Your task to perform on an android device: Go to Android settings Image 0: 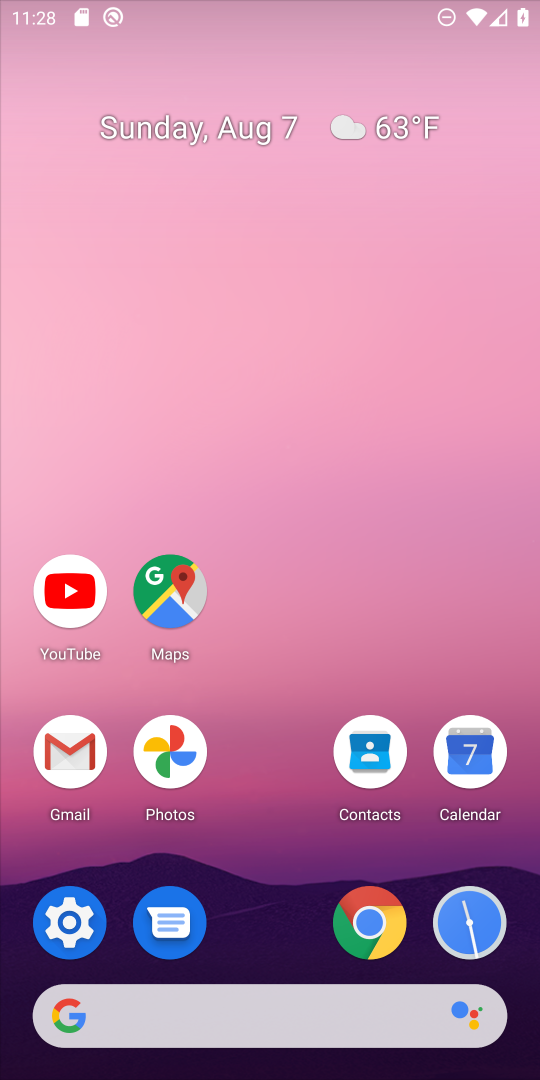
Step 0: press home button
Your task to perform on an android device: Go to Android settings Image 1: 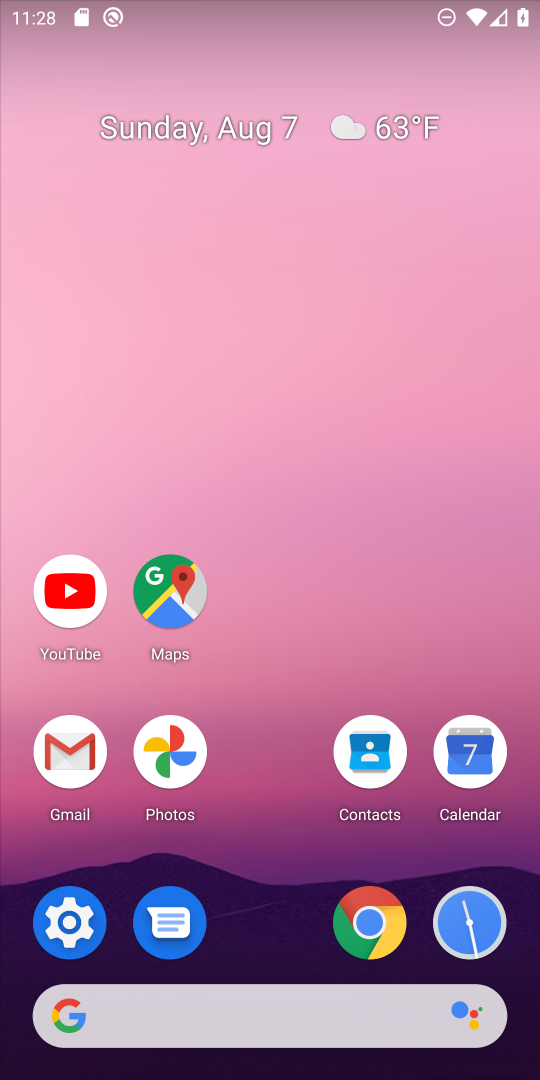
Step 1: click (80, 911)
Your task to perform on an android device: Go to Android settings Image 2: 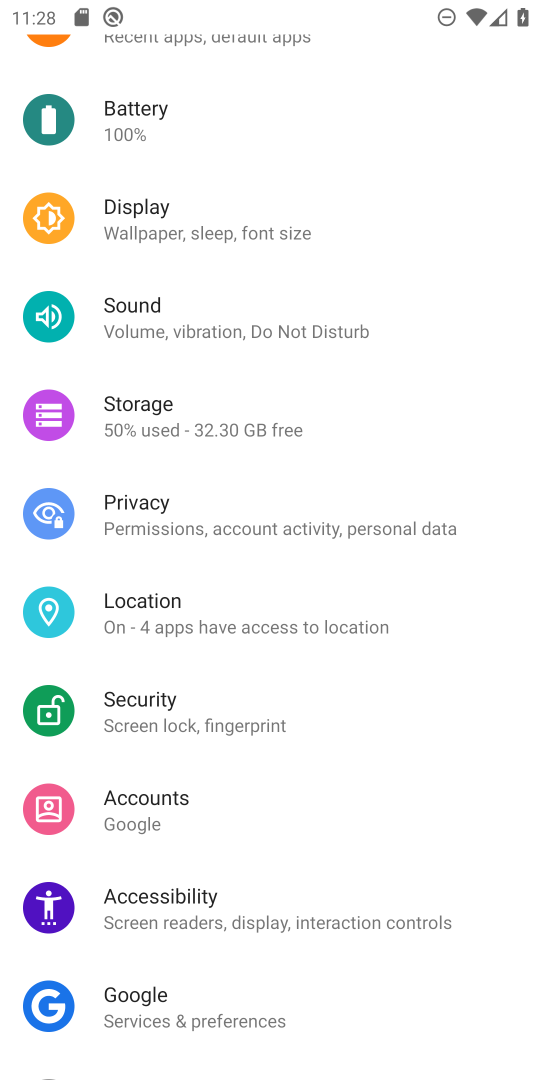
Step 2: task complete